Your task to perform on an android device: turn pop-ups off in chrome Image 0: 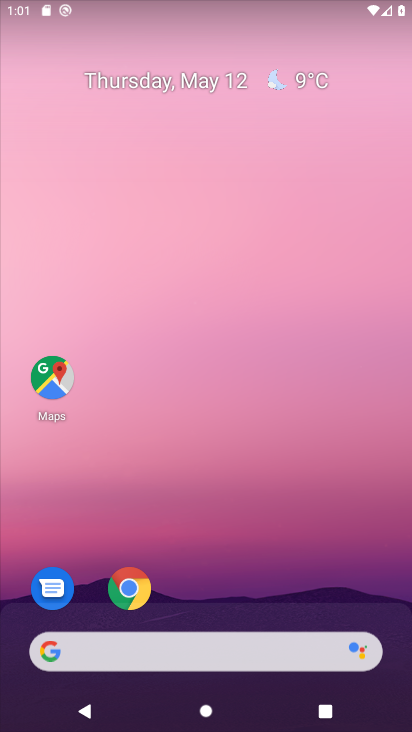
Step 0: drag from (298, 294) to (321, 0)
Your task to perform on an android device: turn pop-ups off in chrome Image 1: 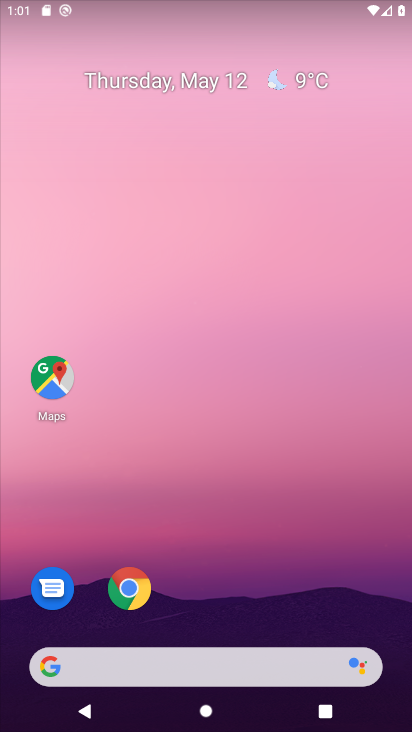
Step 1: drag from (283, 570) to (97, 0)
Your task to perform on an android device: turn pop-ups off in chrome Image 2: 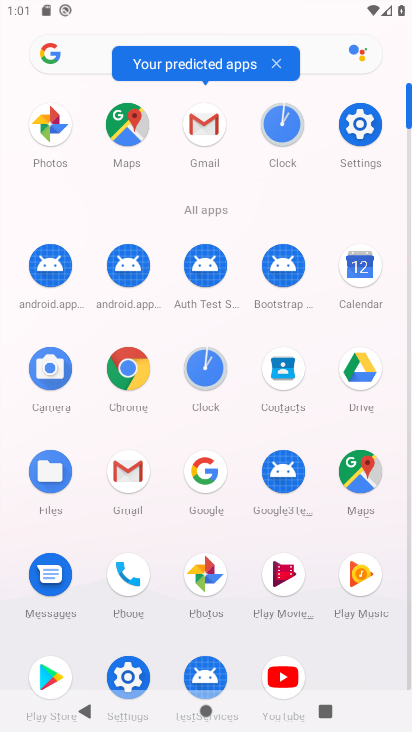
Step 2: click (120, 375)
Your task to perform on an android device: turn pop-ups off in chrome Image 3: 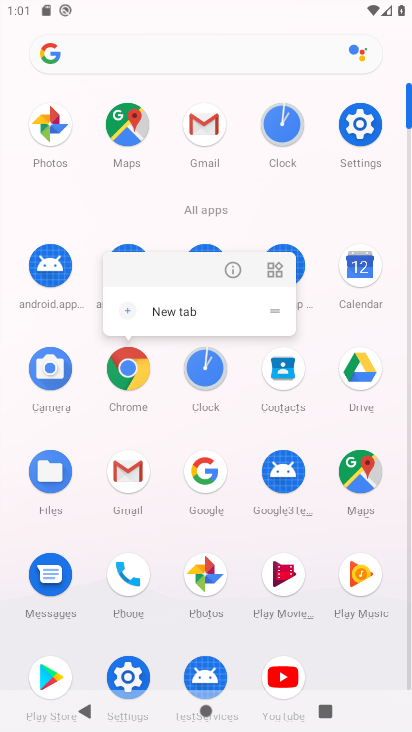
Step 3: click (121, 373)
Your task to perform on an android device: turn pop-ups off in chrome Image 4: 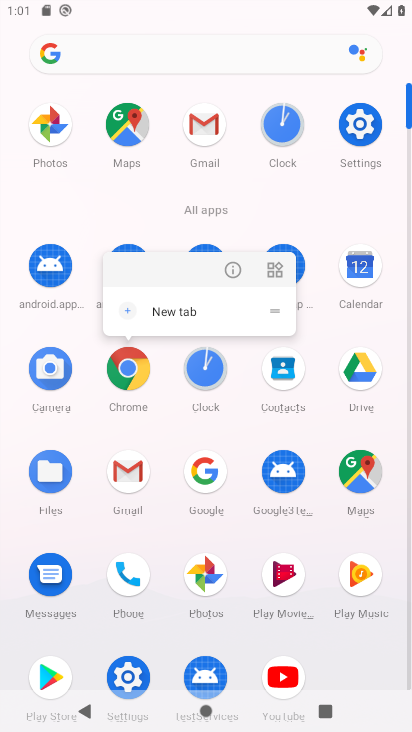
Step 4: click (122, 370)
Your task to perform on an android device: turn pop-ups off in chrome Image 5: 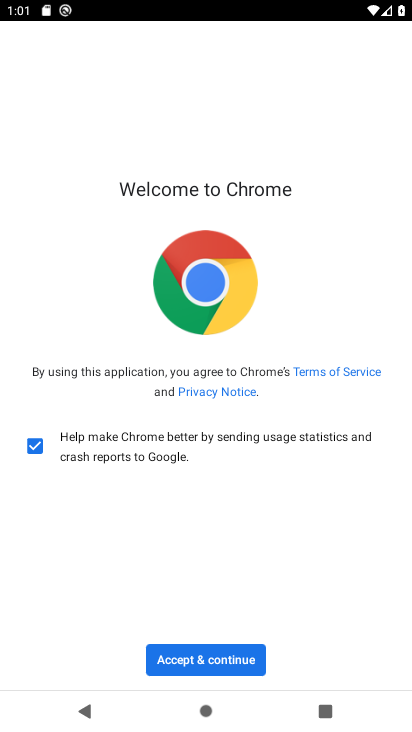
Step 5: click (205, 654)
Your task to perform on an android device: turn pop-ups off in chrome Image 6: 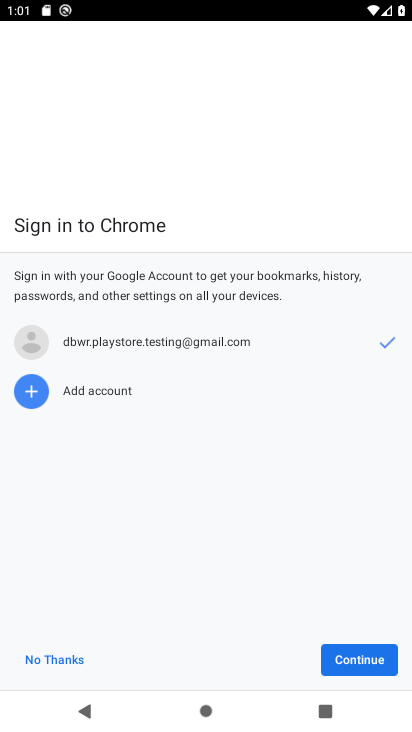
Step 6: click (356, 661)
Your task to perform on an android device: turn pop-ups off in chrome Image 7: 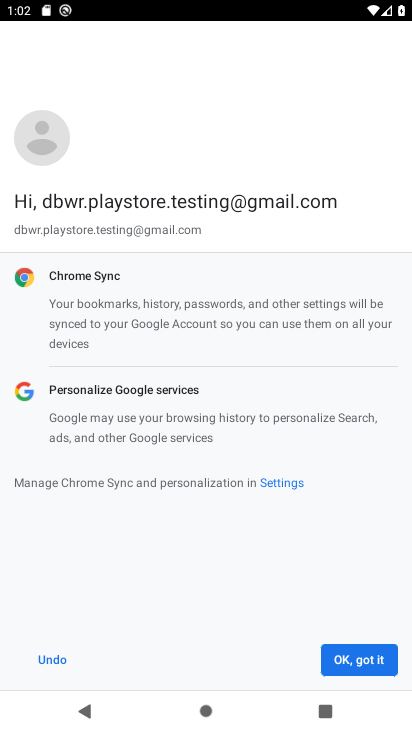
Step 7: click (376, 661)
Your task to perform on an android device: turn pop-ups off in chrome Image 8: 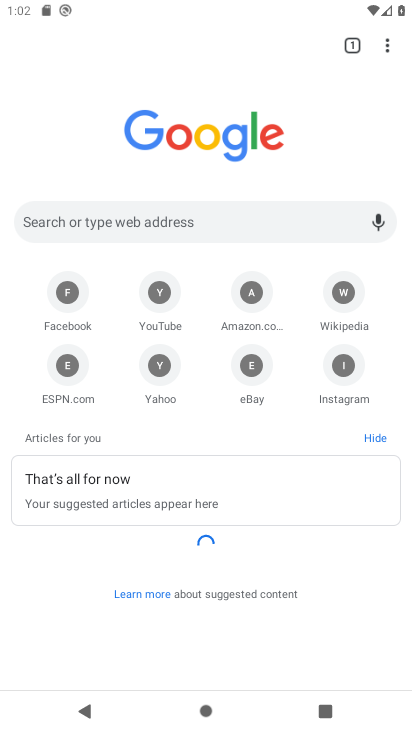
Step 8: drag from (385, 46) to (215, 390)
Your task to perform on an android device: turn pop-ups off in chrome Image 9: 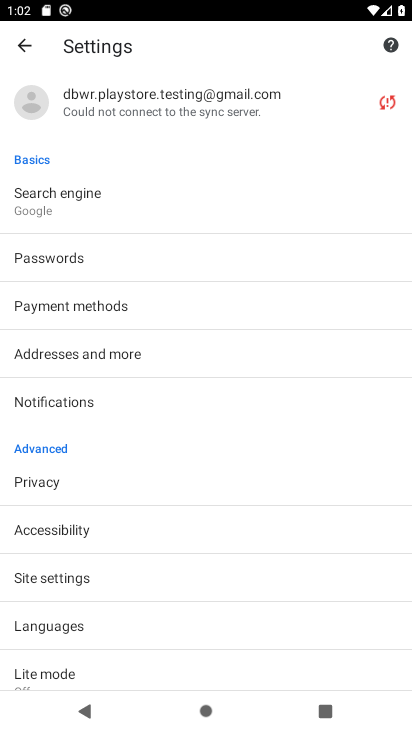
Step 9: click (68, 571)
Your task to perform on an android device: turn pop-ups off in chrome Image 10: 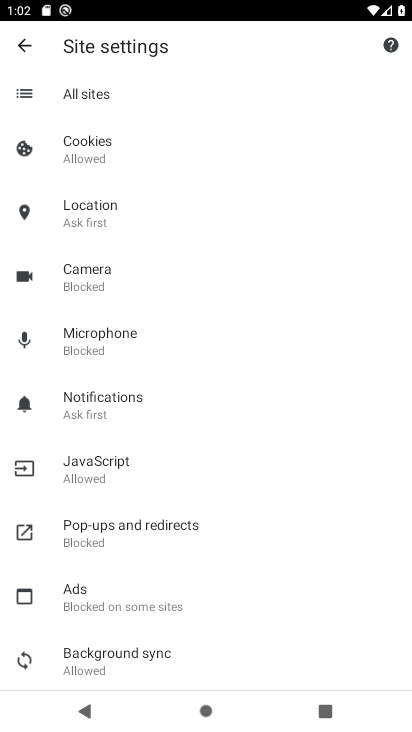
Step 10: click (110, 519)
Your task to perform on an android device: turn pop-ups off in chrome Image 11: 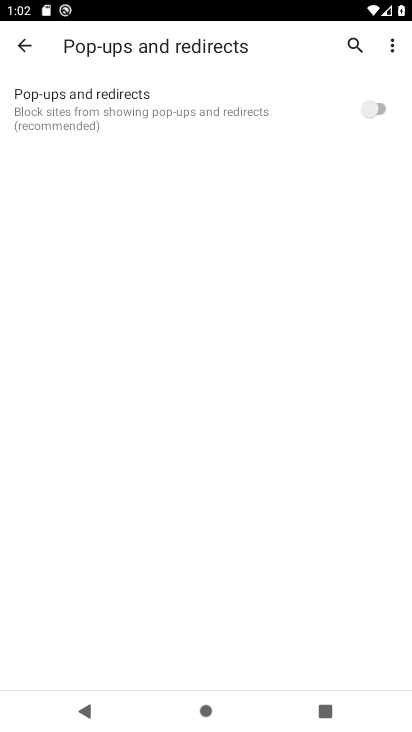
Step 11: task complete